Your task to perform on an android device: change the clock style Image 0: 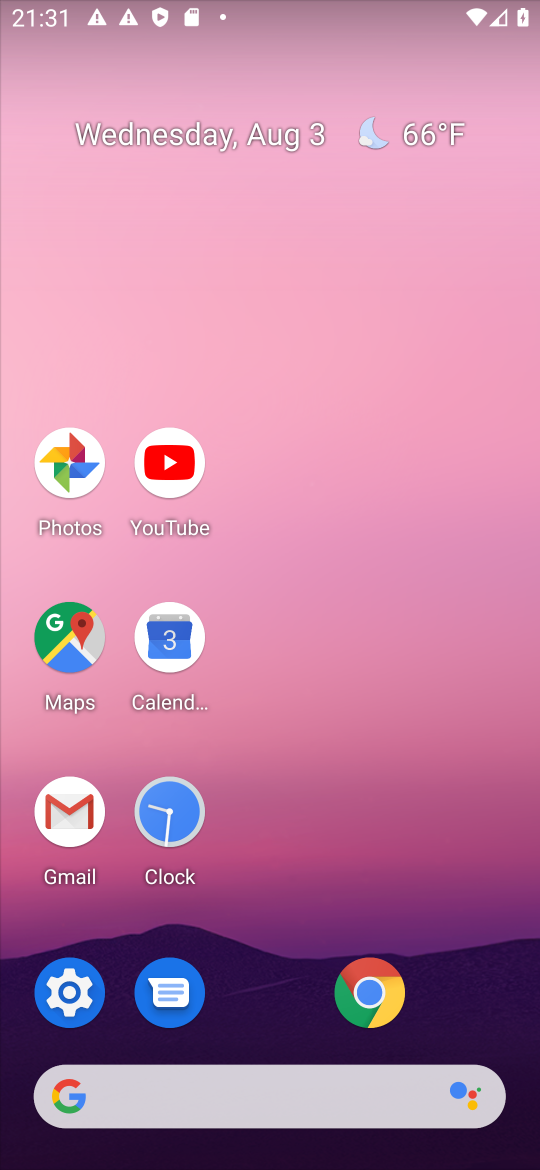
Step 0: click (180, 806)
Your task to perform on an android device: change the clock style Image 1: 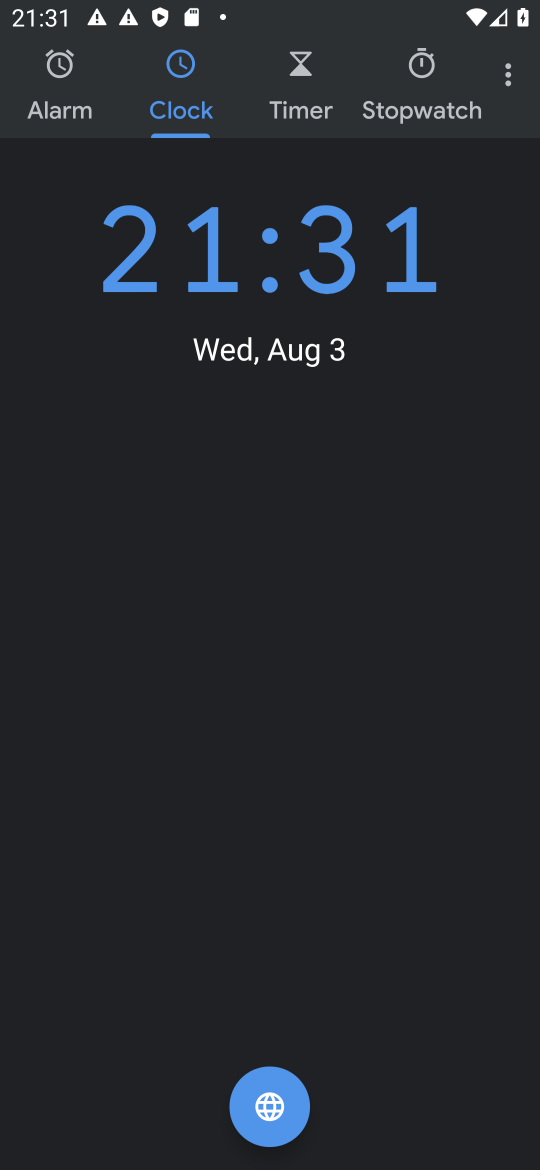
Step 1: click (509, 76)
Your task to perform on an android device: change the clock style Image 2: 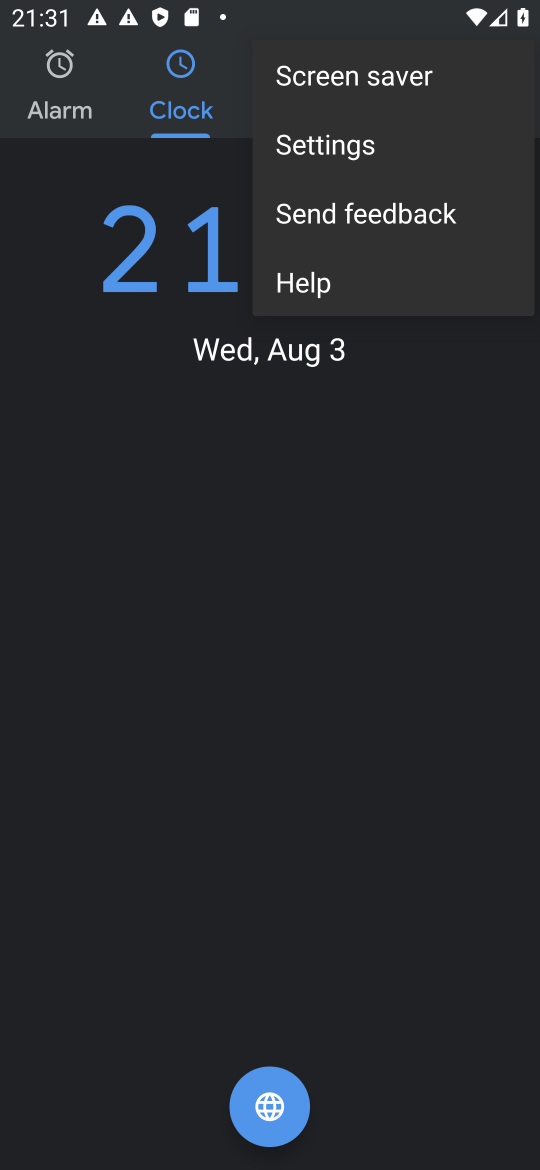
Step 2: click (371, 144)
Your task to perform on an android device: change the clock style Image 3: 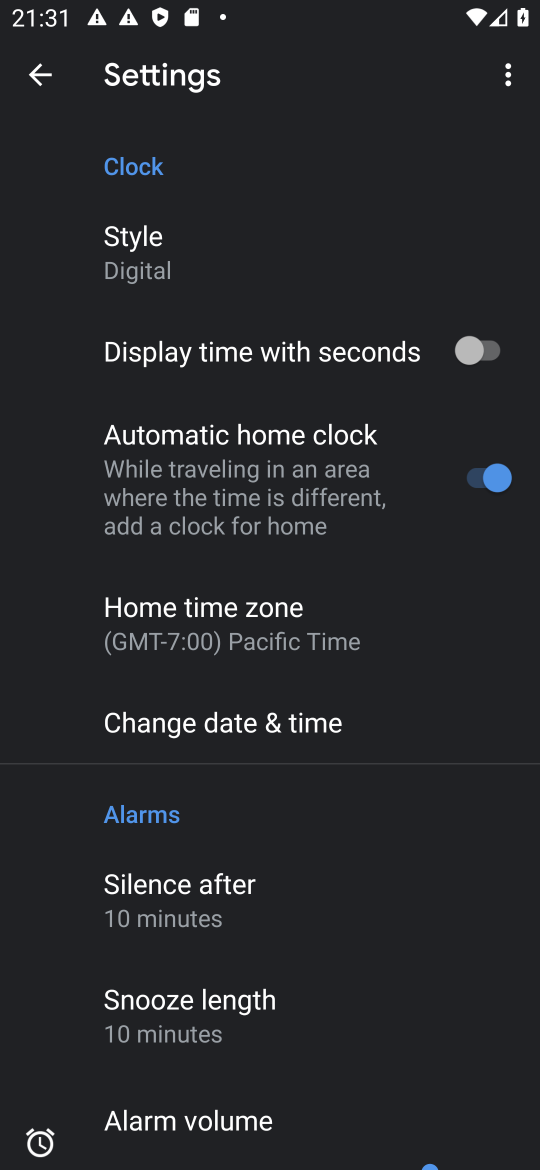
Step 3: click (137, 248)
Your task to perform on an android device: change the clock style Image 4: 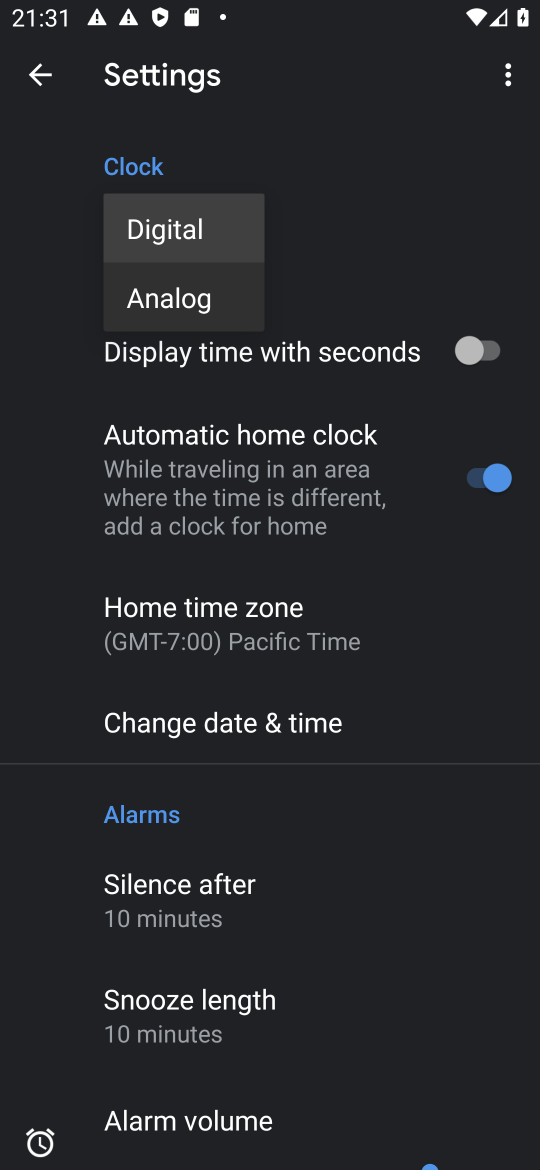
Step 4: click (158, 291)
Your task to perform on an android device: change the clock style Image 5: 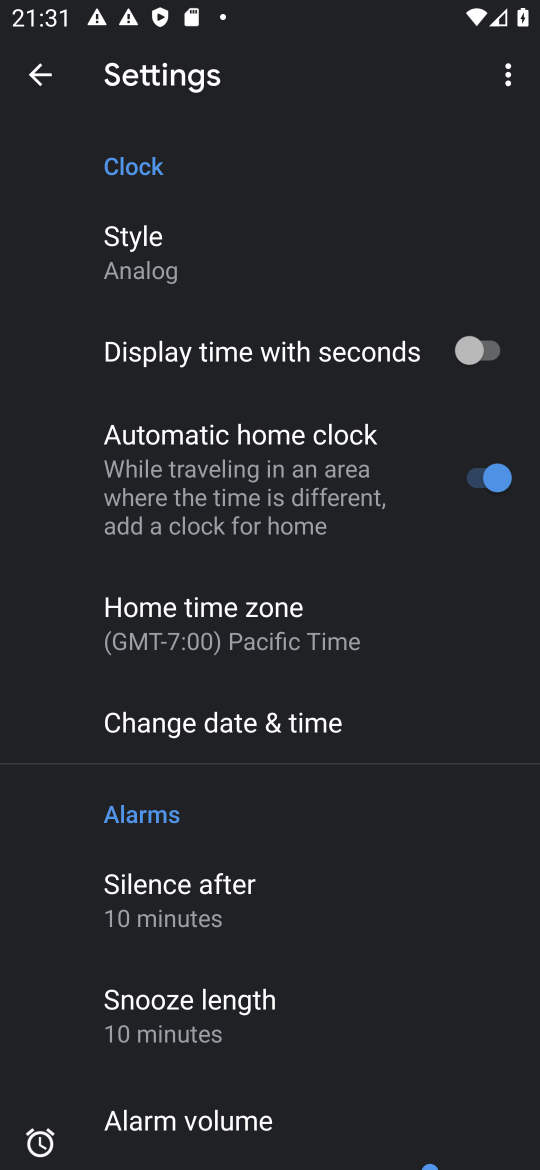
Step 5: task complete